Your task to perform on an android device: turn on location history Image 0: 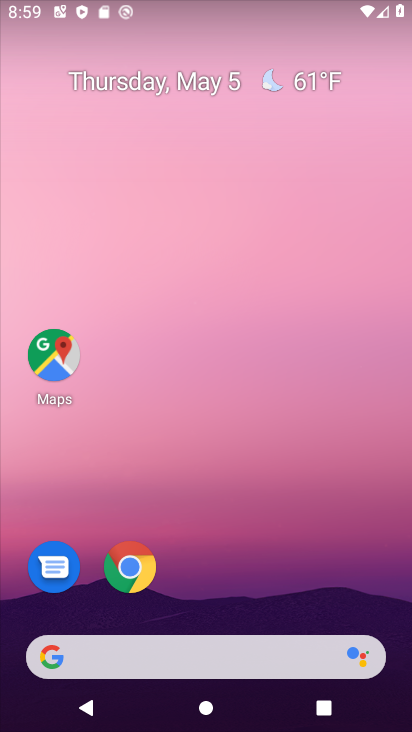
Step 0: drag from (268, 585) to (278, 183)
Your task to perform on an android device: turn on location history Image 1: 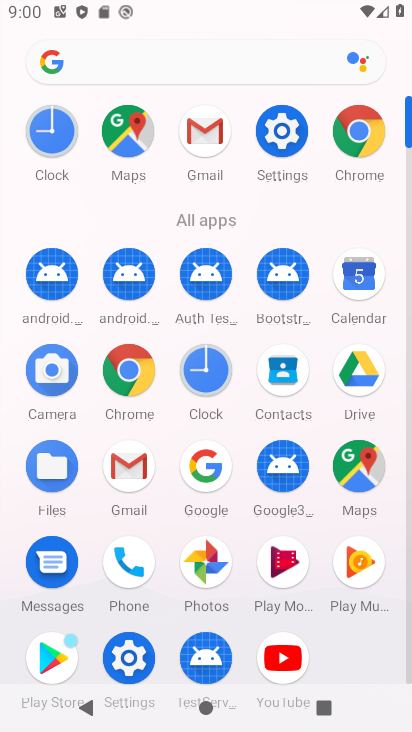
Step 1: click (272, 129)
Your task to perform on an android device: turn on location history Image 2: 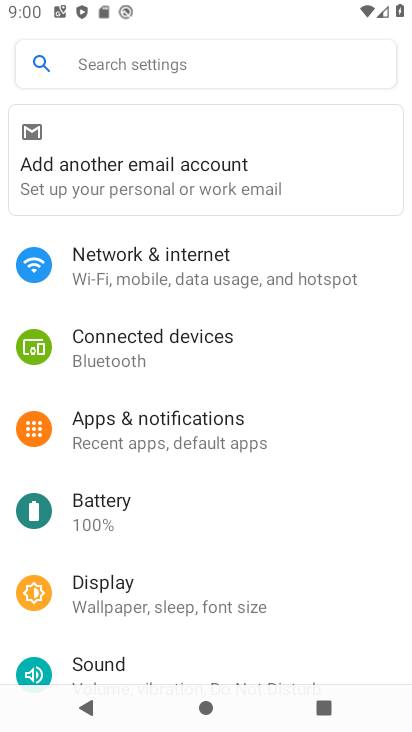
Step 2: drag from (307, 561) to (307, 289)
Your task to perform on an android device: turn on location history Image 3: 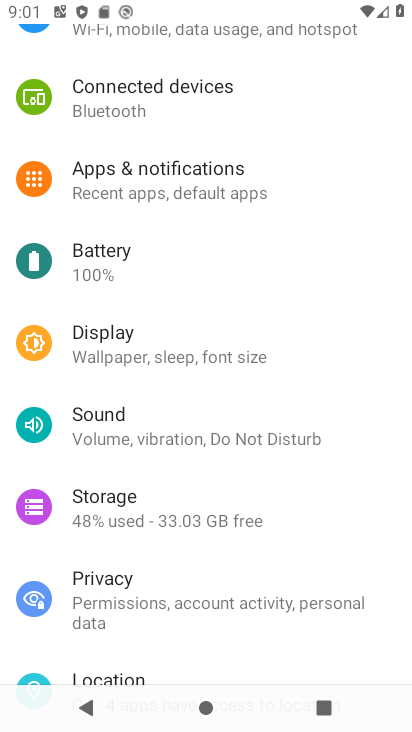
Step 3: click (141, 669)
Your task to perform on an android device: turn on location history Image 4: 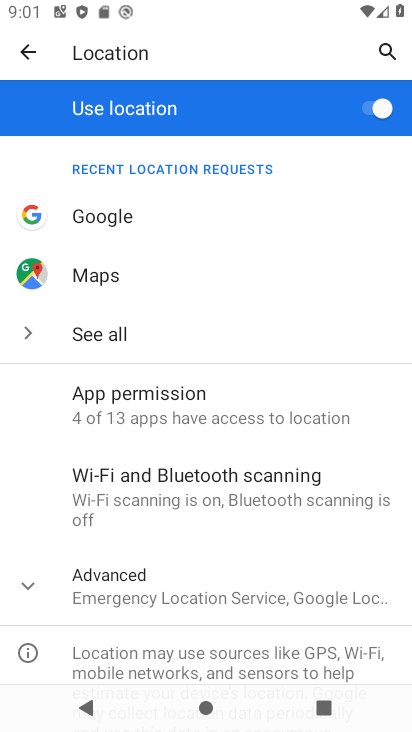
Step 4: click (240, 580)
Your task to perform on an android device: turn on location history Image 5: 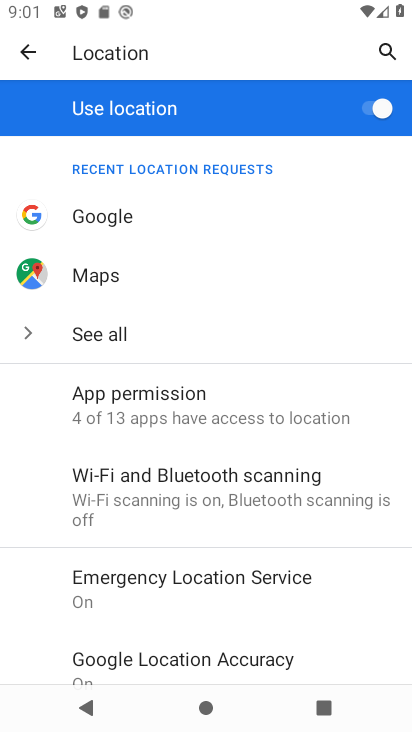
Step 5: drag from (267, 603) to (275, 327)
Your task to perform on an android device: turn on location history Image 6: 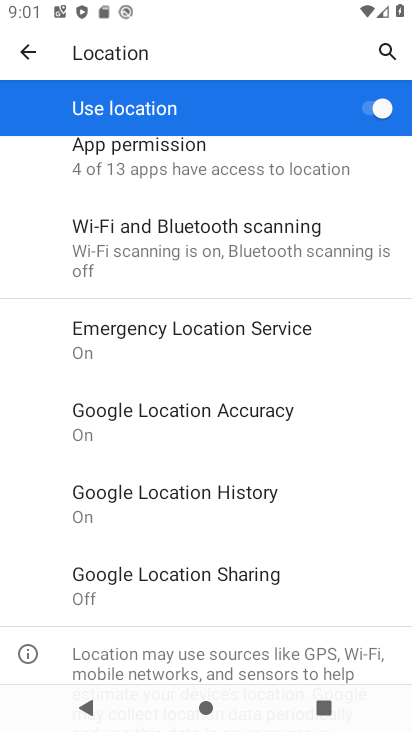
Step 6: click (210, 486)
Your task to perform on an android device: turn on location history Image 7: 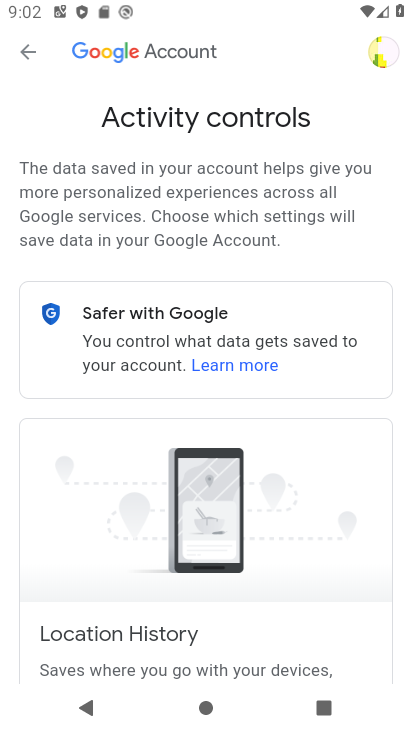
Step 7: drag from (294, 616) to (288, 307)
Your task to perform on an android device: turn on location history Image 8: 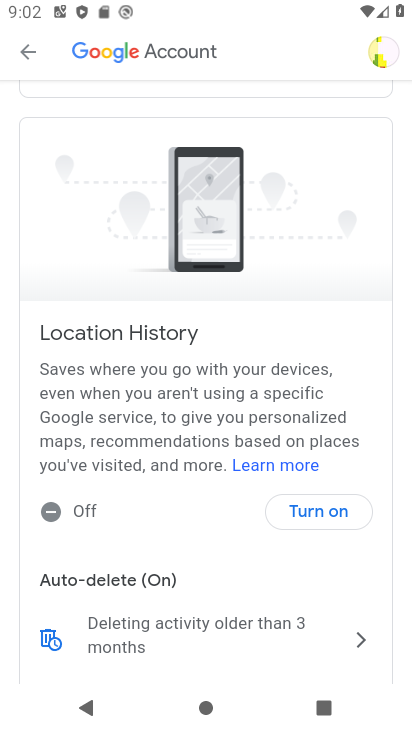
Step 8: click (328, 511)
Your task to perform on an android device: turn on location history Image 9: 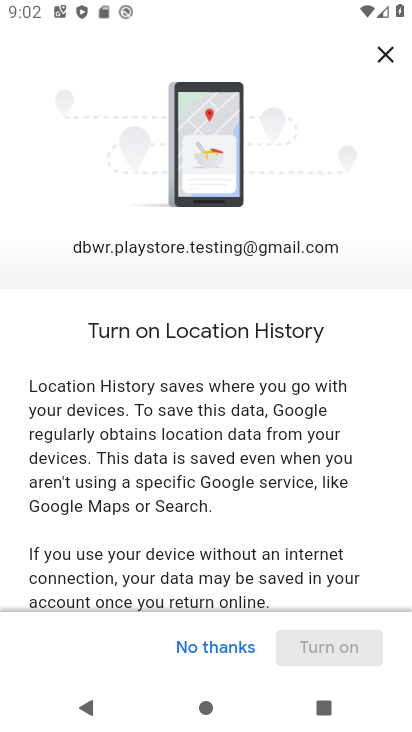
Step 9: drag from (328, 561) to (316, 199)
Your task to perform on an android device: turn on location history Image 10: 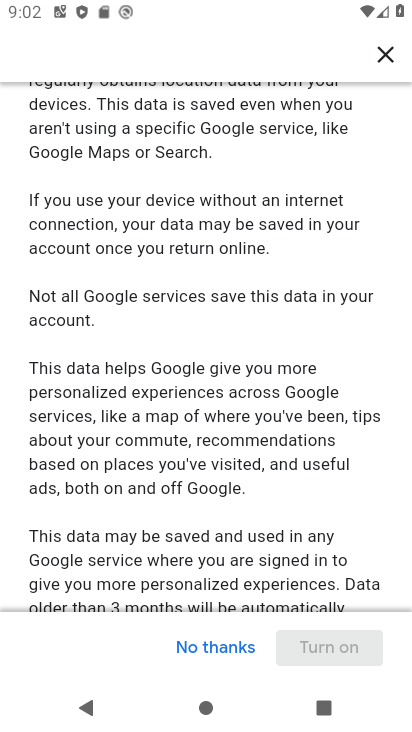
Step 10: drag from (290, 516) to (296, 194)
Your task to perform on an android device: turn on location history Image 11: 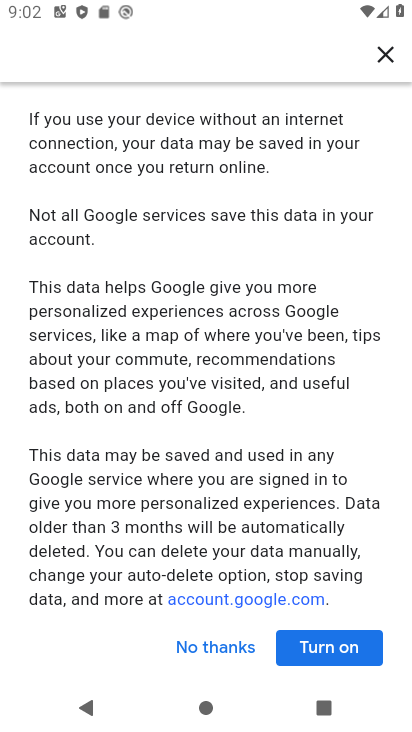
Step 11: click (332, 642)
Your task to perform on an android device: turn on location history Image 12: 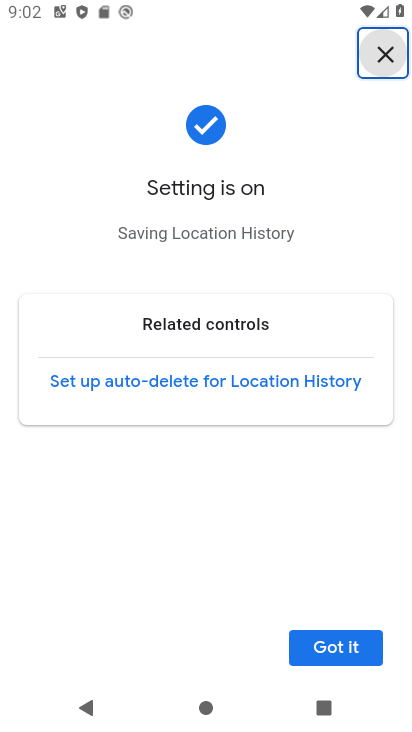
Step 12: click (330, 637)
Your task to perform on an android device: turn on location history Image 13: 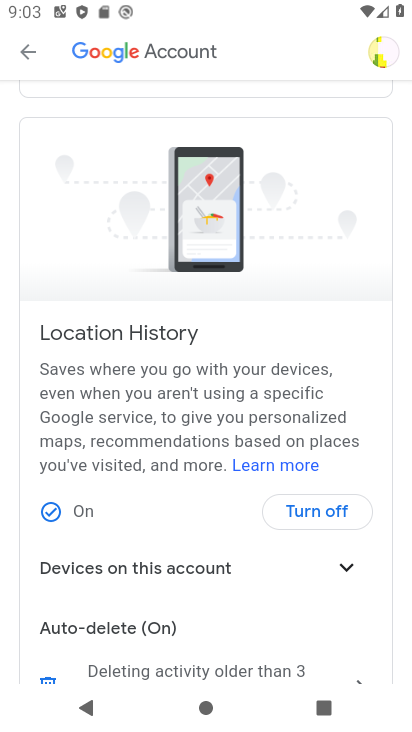
Step 13: task complete